Your task to perform on an android device: toggle sleep mode Image 0: 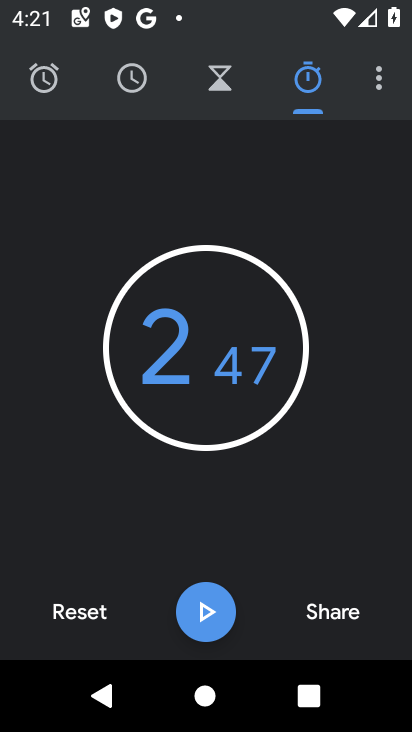
Step 0: press home button
Your task to perform on an android device: toggle sleep mode Image 1: 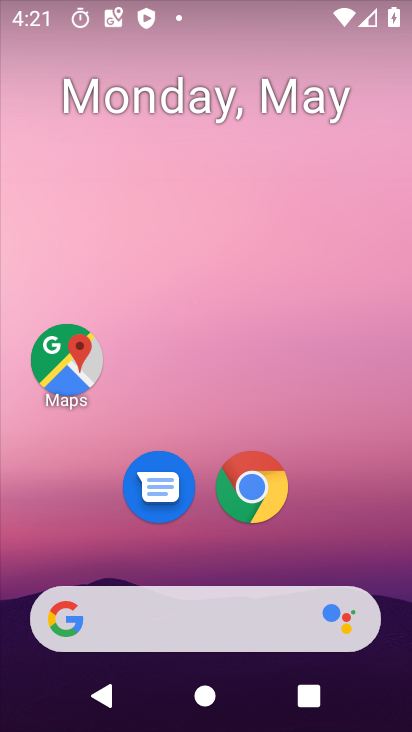
Step 1: drag from (374, 549) to (320, 0)
Your task to perform on an android device: toggle sleep mode Image 2: 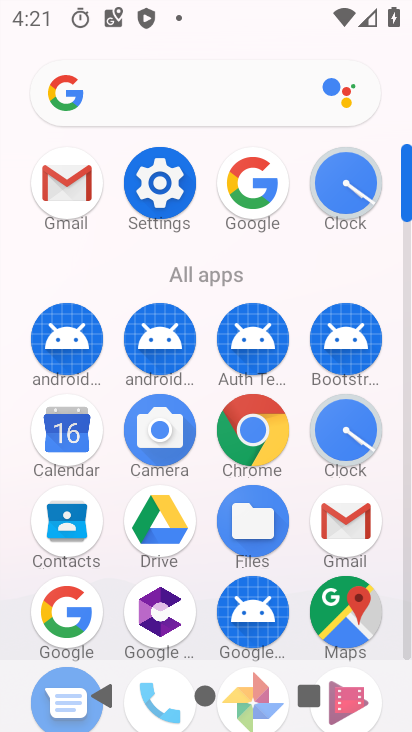
Step 2: click (169, 191)
Your task to perform on an android device: toggle sleep mode Image 3: 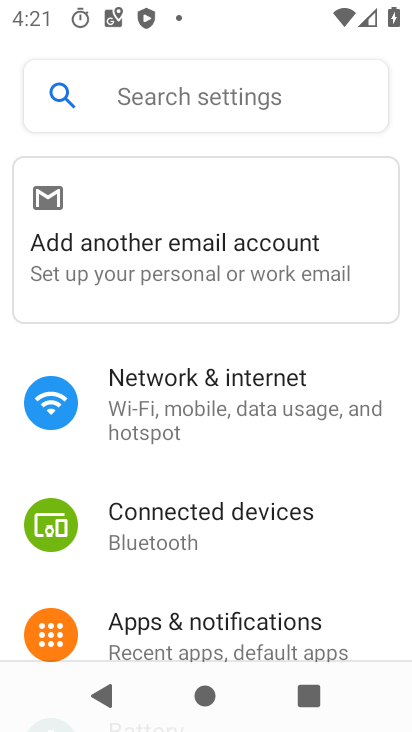
Step 3: drag from (213, 527) to (218, 128)
Your task to perform on an android device: toggle sleep mode Image 4: 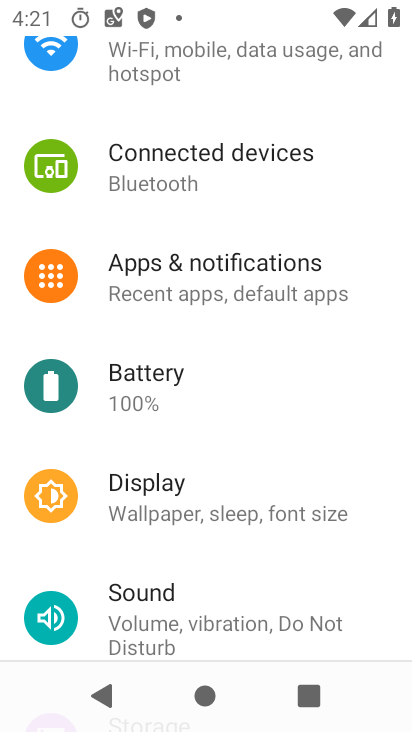
Step 4: click (164, 483)
Your task to perform on an android device: toggle sleep mode Image 5: 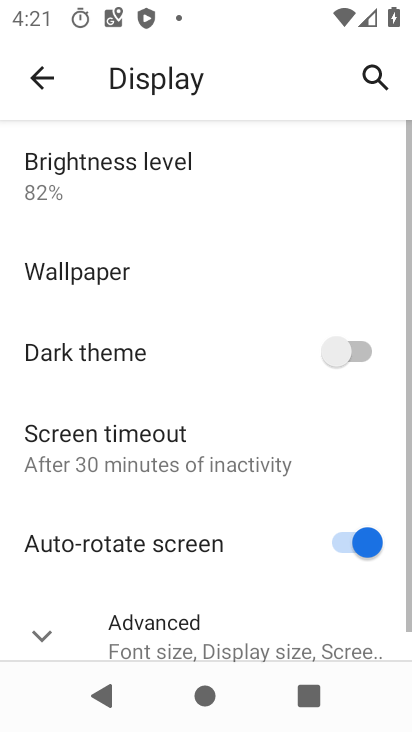
Step 5: drag from (164, 481) to (200, 120)
Your task to perform on an android device: toggle sleep mode Image 6: 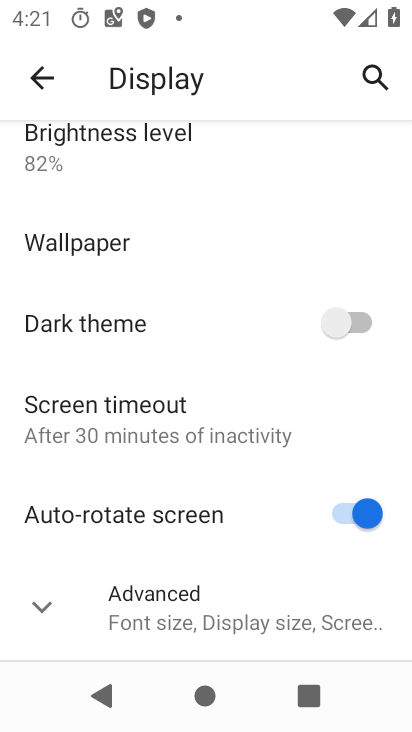
Step 6: click (36, 613)
Your task to perform on an android device: toggle sleep mode Image 7: 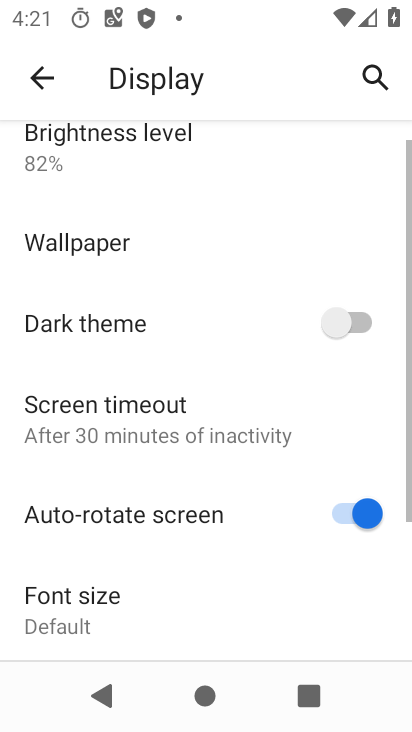
Step 7: task complete